Your task to perform on an android device: toggle data saver in the chrome app Image 0: 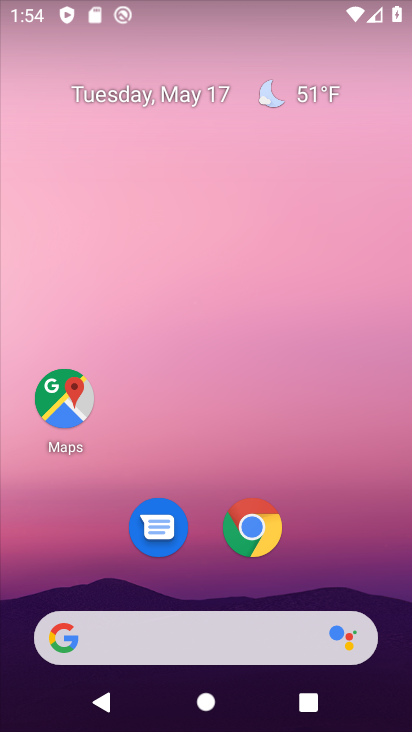
Step 0: click (252, 526)
Your task to perform on an android device: toggle data saver in the chrome app Image 1: 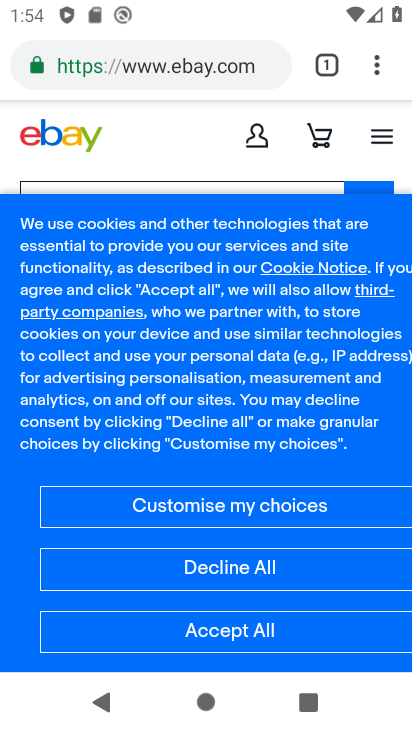
Step 1: click (378, 66)
Your task to perform on an android device: toggle data saver in the chrome app Image 2: 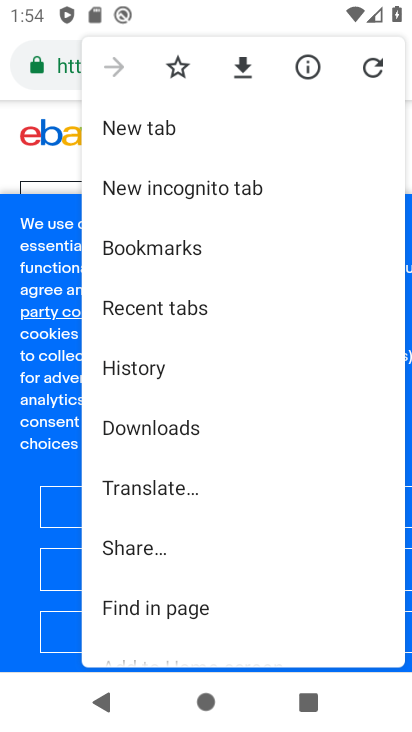
Step 2: drag from (222, 472) to (271, 366)
Your task to perform on an android device: toggle data saver in the chrome app Image 3: 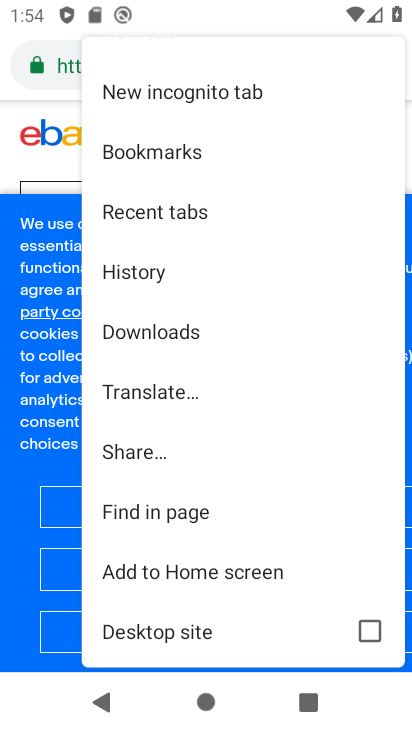
Step 3: drag from (173, 543) to (254, 434)
Your task to perform on an android device: toggle data saver in the chrome app Image 4: 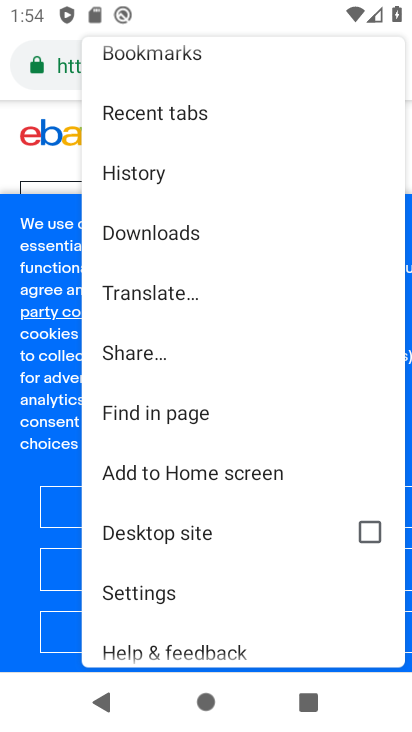
Step 4: drag from (179, 562) to (254, 461)
Your task to perform on an android device: toggle data saver in the chrome app Image 5: 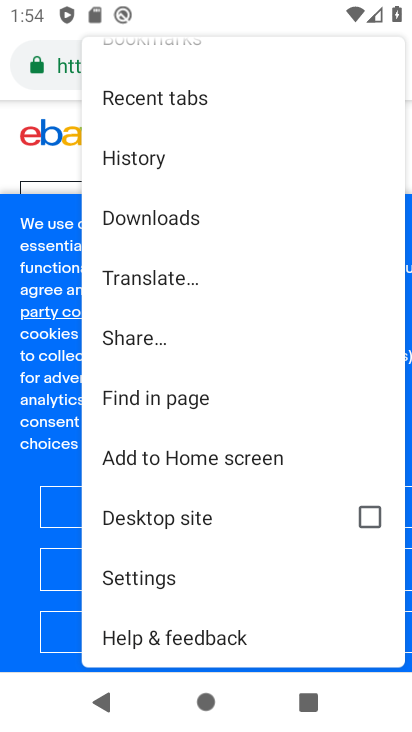
Step 5: click (139, 579)
Your task to perform on an android device: toggle data saver in the chrome app Image 6: 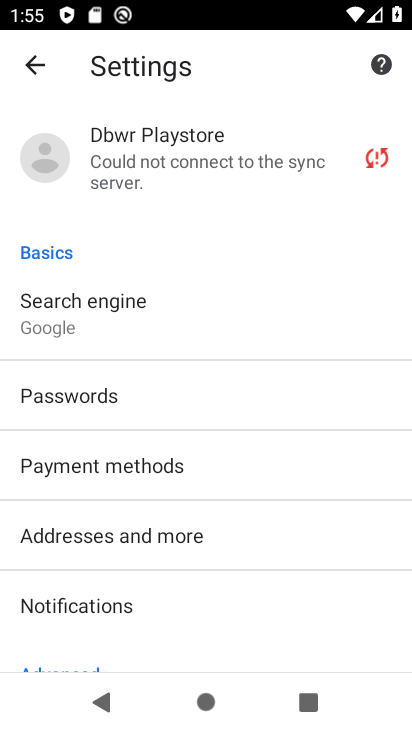
Step 6: drag from (170, 613) to (204, 496)
Your task to perform on an android device: toggle data saver in the chrome app Image 7: 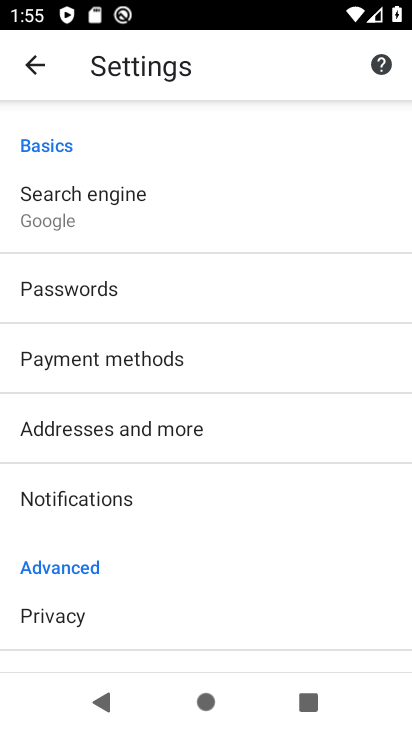
Step 7: drag from (142, 552) to (190, 437)
Your task to perform on an android device: toggle data saver in the chrome app Image 8: 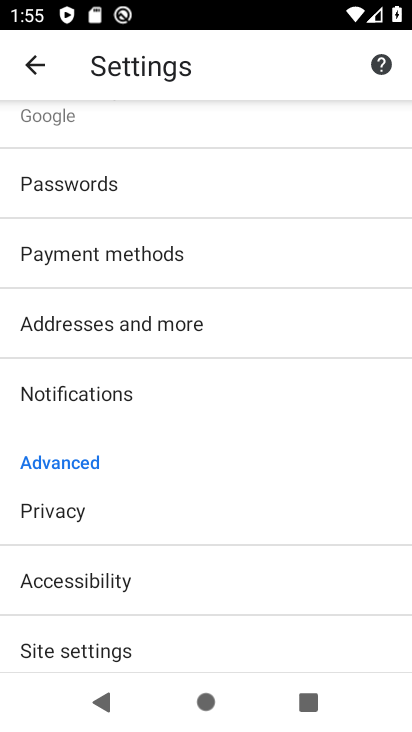
Step 8: drag from (115, 516) to (172, 433)
Your task to perform on an android device: toggle data saver in the chrome app Image 9: 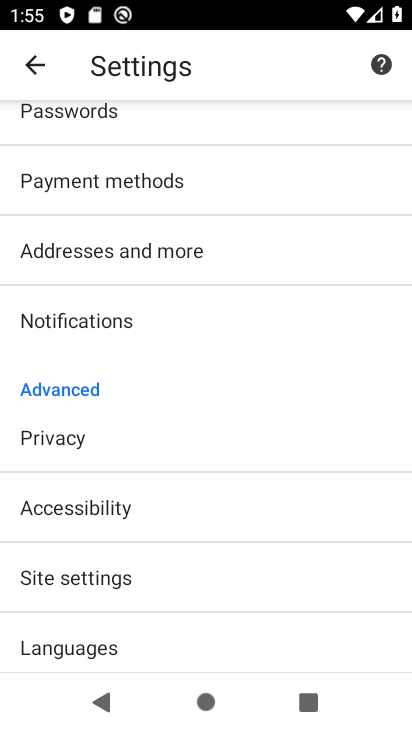
Step 9: drag from (141, 570) to (203, 481)
Your task to perform on an android device: toggle data saver in the chrome app Image 10: 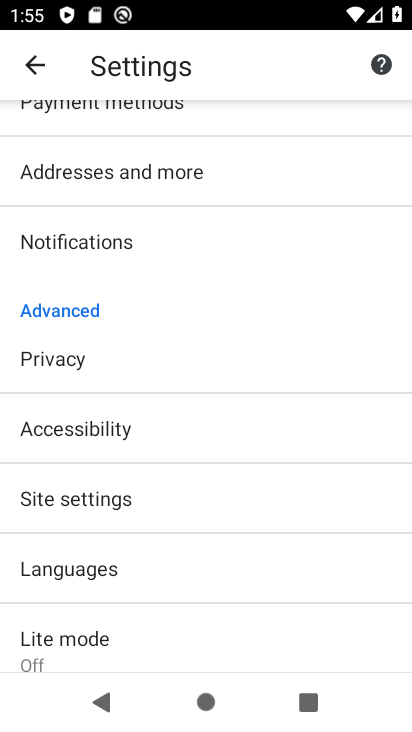
Step 10: drag from (136, 573) to (198, 480)
Your task to perform on an android device: toggle data saver in the chrome app Image 11: 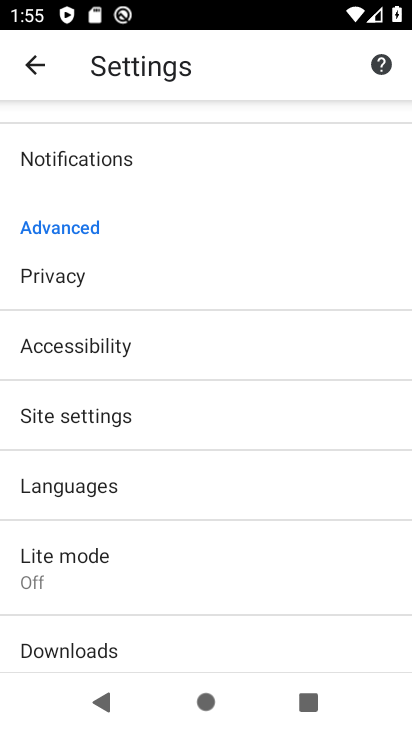
Step 11: drag from (144, 595) to (171, 504)
Your task to perform on an android device: toggle data saver in the chrome app Image 12: 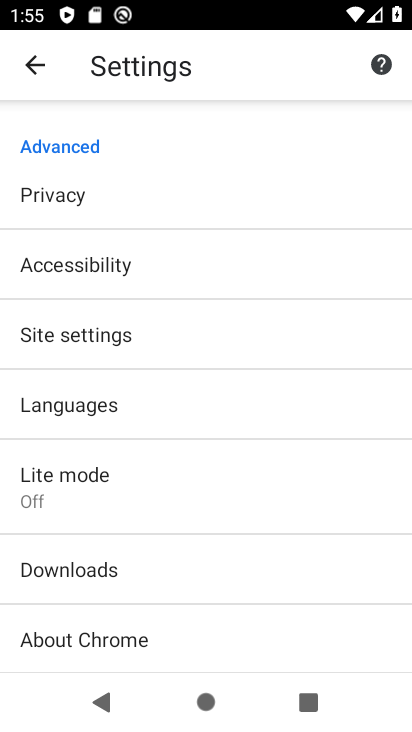
Step 12: click (99, 479)
Your task to perform on an android device: toggle data saver in the chrome app Image 13: 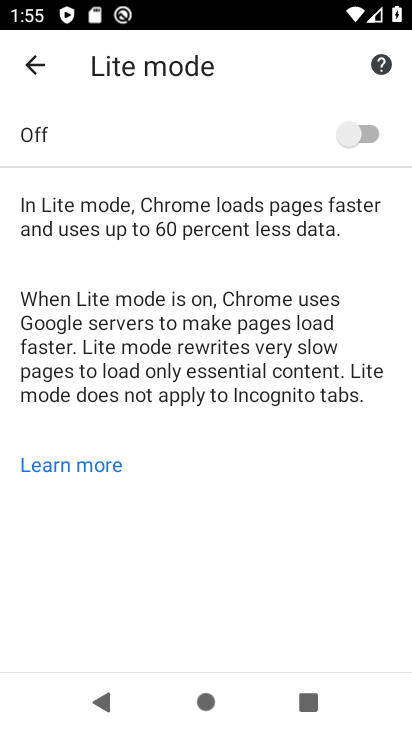
Step 13: click (349, 143)
Your task to perform on an android device: toggle data saver in the chrome app Image 14: 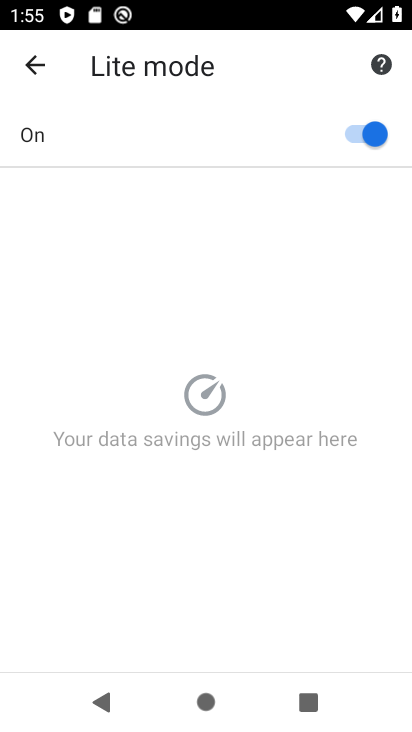
Step 14: task complete